Your task to perform on an android device: see creations saved in the google photos Image 0: 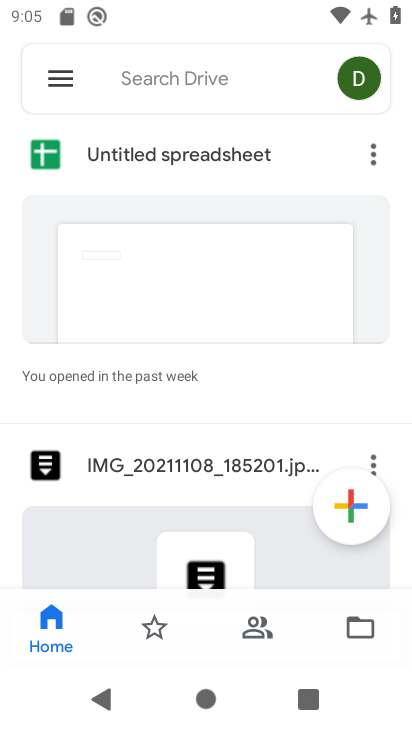
Step 0: press home button
Your task to perform on an android device: see creations saved in the google photos Image 1: 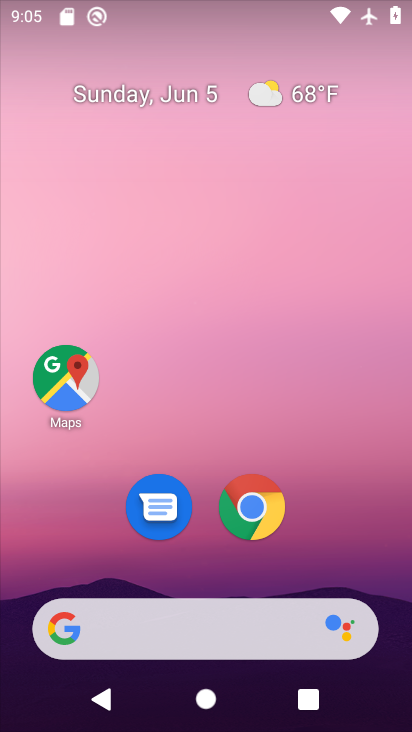
Step 1: drag from (210, 548) to (332, 15)
Your task to perform on an android device: see creations saved in the google photos Image 2: 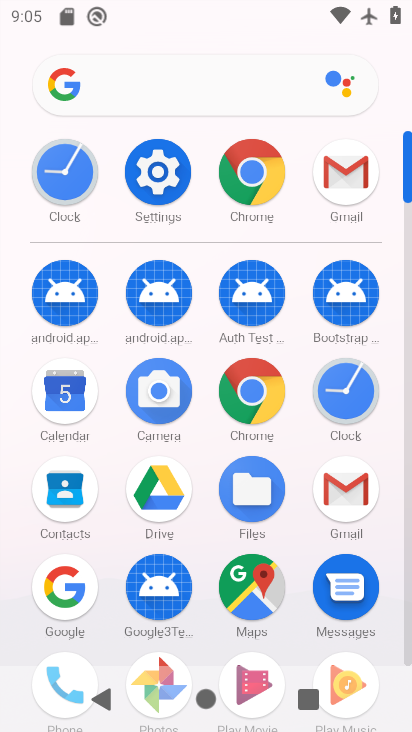
Step 2: drag from (205, 540) to (207, 242)
Your task to perform on an android device: see creations saved in the google photos Image 3: 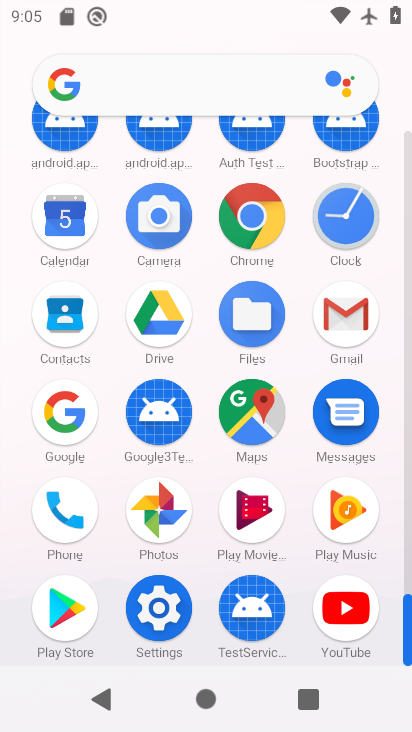
Step 3: click (163, 503)
Your task to perform on an android device: see creations saved in the google photos Image 4: 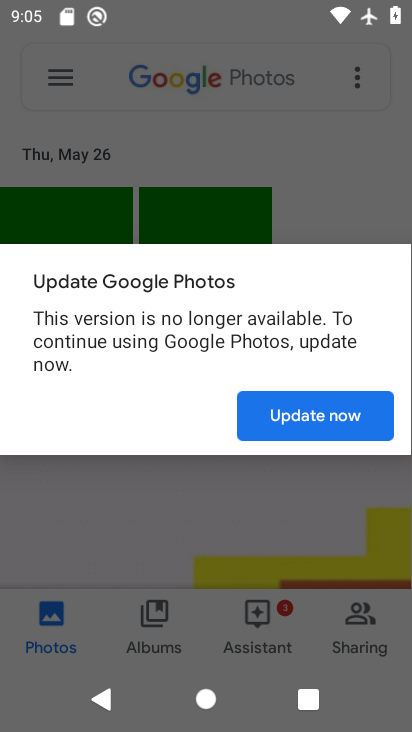
Step 4: click (328, 407)
Your task to perform on an android device: see creations saved in the google photos Image 5: 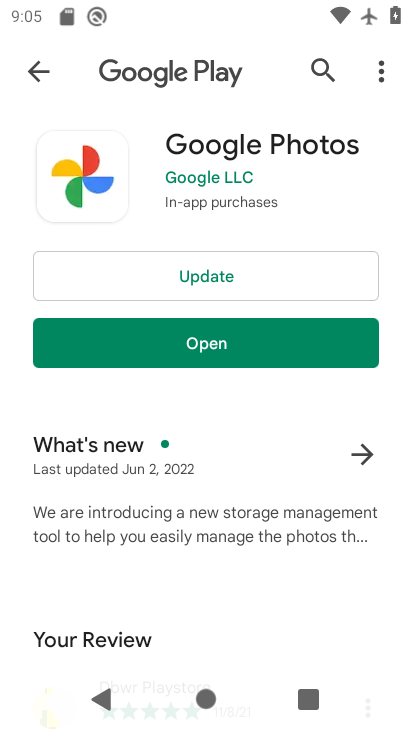
Step 5: press back button
Your task to perform on an android device: see creations saved in the google photos Image 6: 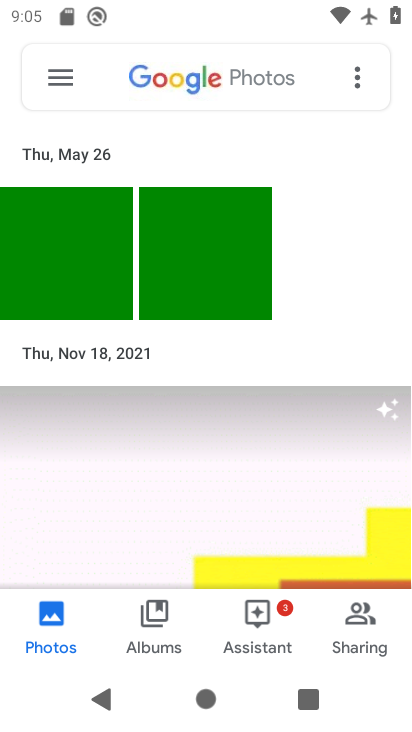
Step 6: click (255, 78)
Your task to perform on an android device: see creations saved in the google photos Image 7: 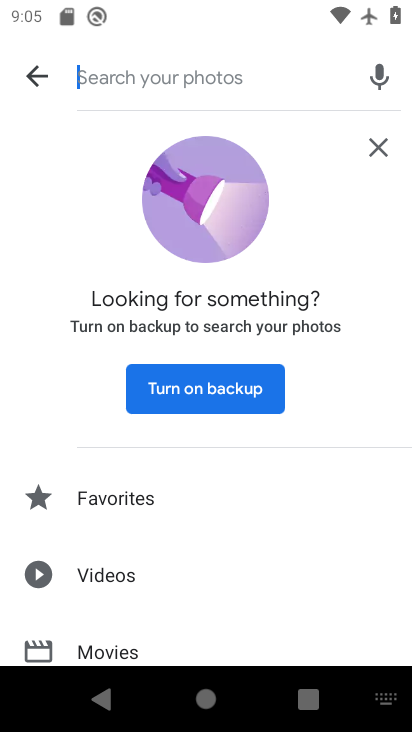
Step 7: type "creations"
Your task to perform on an android device: see creations saved in the google photos Image 8: 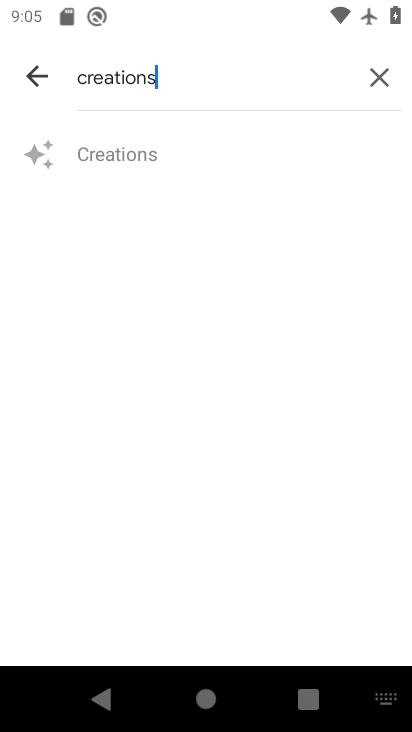
Step 8: click (193, 149)
Your task to perform on an android device: see creations saved in the google photos Image 9: 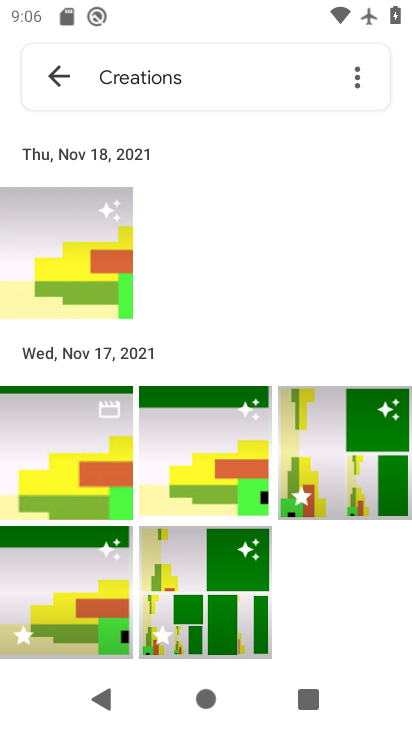
Step 9: task complete